Your task to perform on an android device: Open battery settings Image 0: 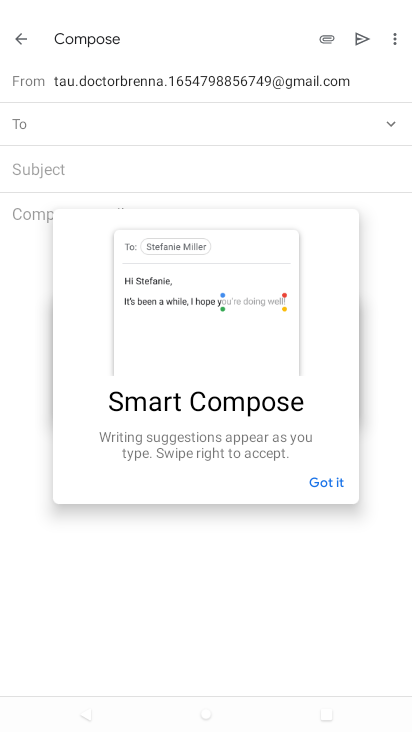
Step 0: drag from (195, 8) to (205, 549)
Your task to perform on an android device: Open battery settings Image 1: 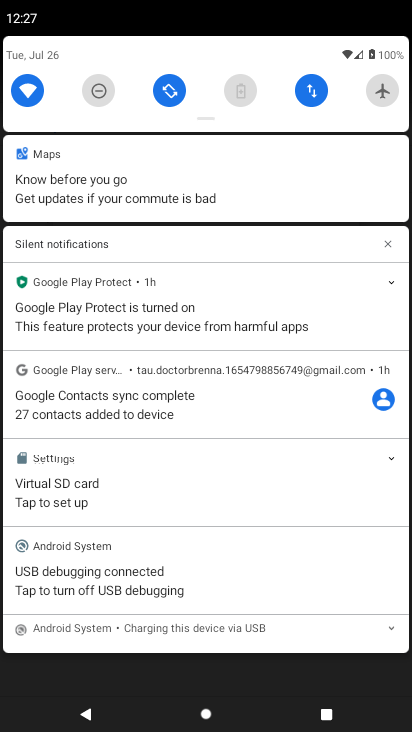
Step 1: click (248, 89)
Your task to perform on an android device: Open battery settings Image 2: 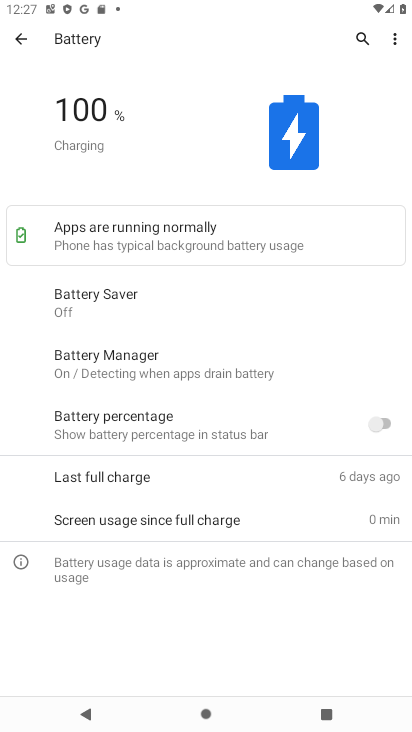
Step 2: task complete